Your task to perform on an android device: Open Wikipedia Image 0: 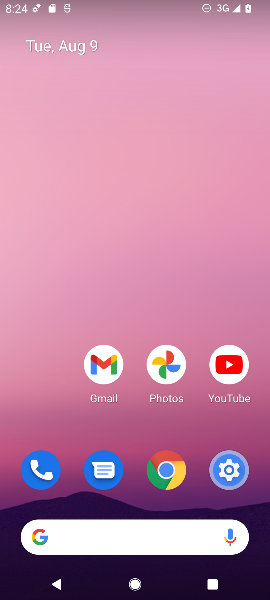
Step 0: drag from (133, 541) to (115, 87)
Your task to perform on an android device: Open Wikipedia Image 1: 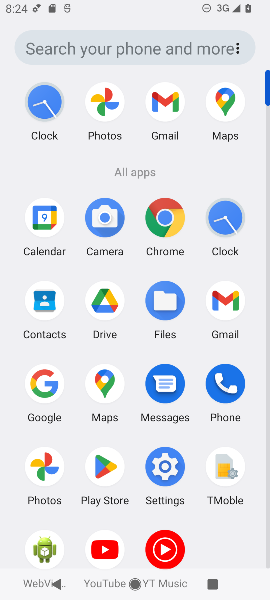
Step 1: click (42, 382)
Your task to perform on an android device: Open Wikipedia Image 2: 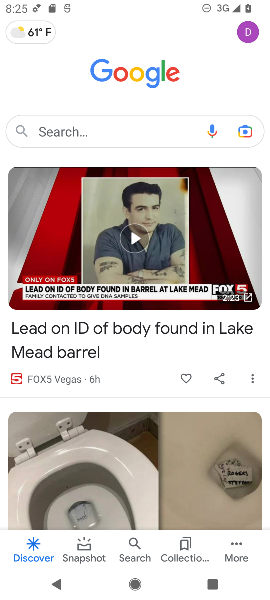
Step 2: click (122, 131)
Your task to perform on an android device: Open Wikipedia Image 3: 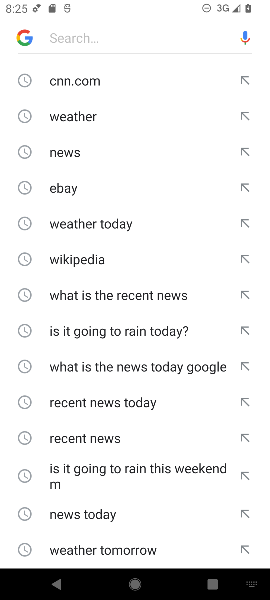
Step 3: click (71, 256)
Your task to perform on an android device: Open Wikipedia Image 4: 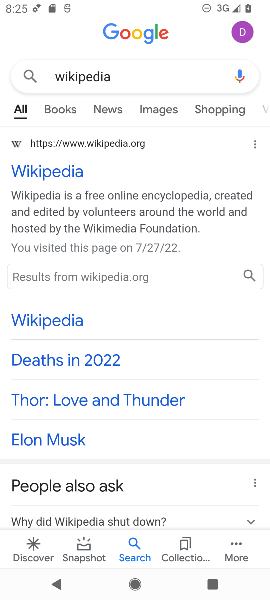
Step 4: click (54, 174)
Your task to perform on an android device: Open Wikipedia Image 5: 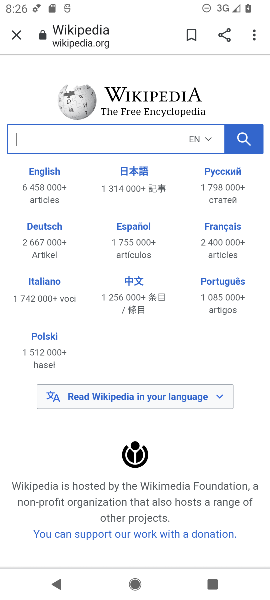
Step 5: task complete